Your task to perform on an android device: see tabs open on other devices in the chrome app Image 0: 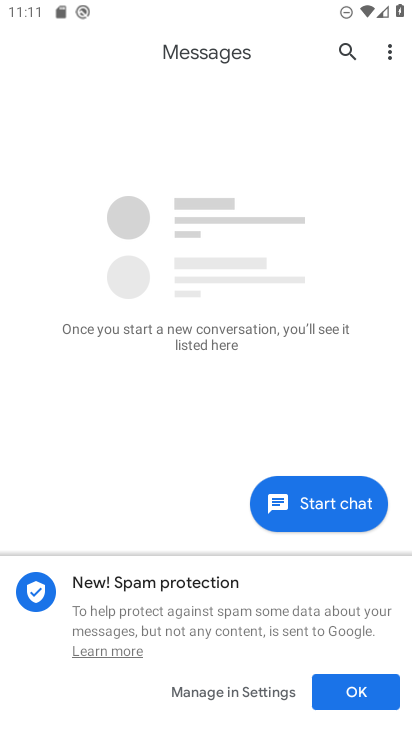
Step 0: drag from (185, 624) to (297, 127)
Your task to perform on an android device: see tabs open on other devices in the chrome app Image 1: 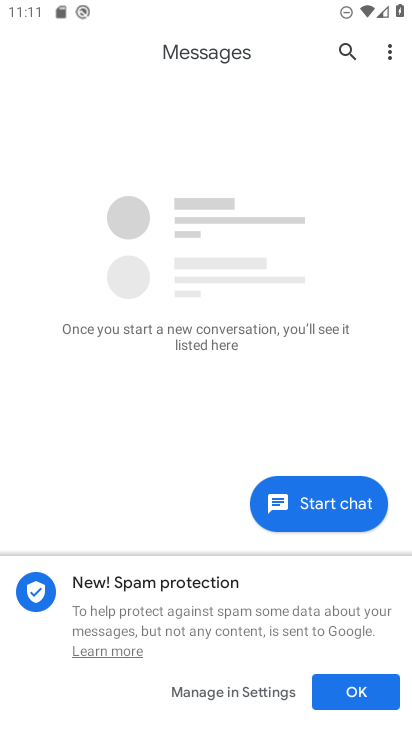
Step 1: press home button
Your task to perform on an android device: see tabs open on other devices in the chrome app Image 2: 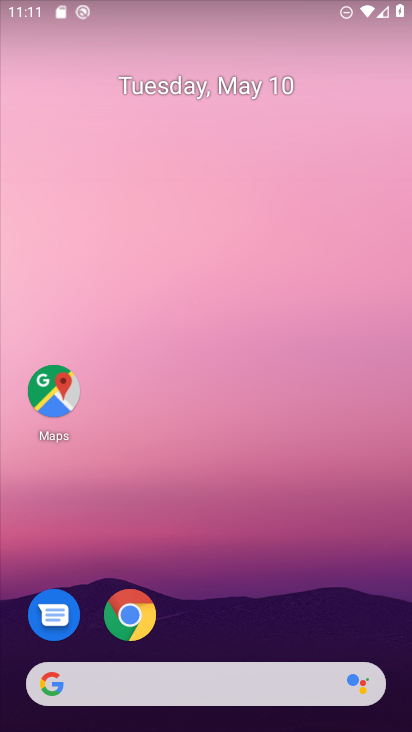
Step 2: drag from (203, 640) to (322, 146)
Your task to perform on an android device: see tabs open on other devices in the chrome app Image 3: 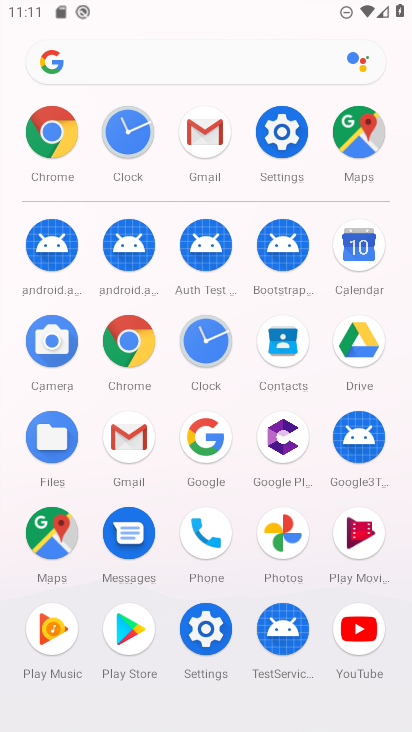
Step 3: click (131, 333)
Your task to perform on an android device: see tabs open on other devices in the chrome app Image 4: 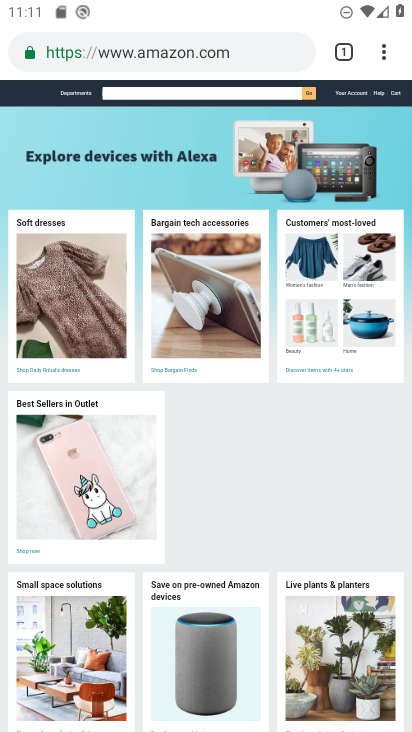
Step 4: task complete